Your task to perform on an android device: Open notification settings Image 0: 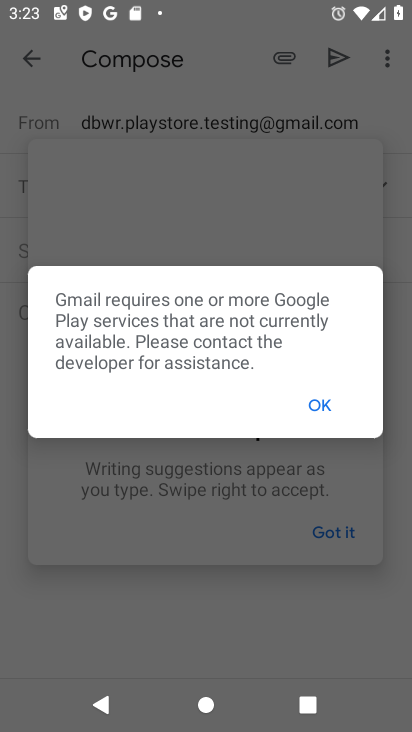
Step 0: press home button
Your task to perform on an android device: Open notification settings Image 1: 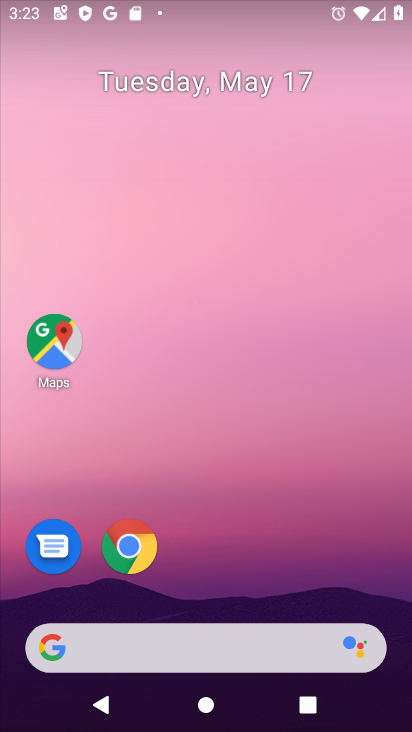
Step 1: drag from (403, 486) to (387, 211)
Your task to perform on an android device: Open notification settings Image 2: 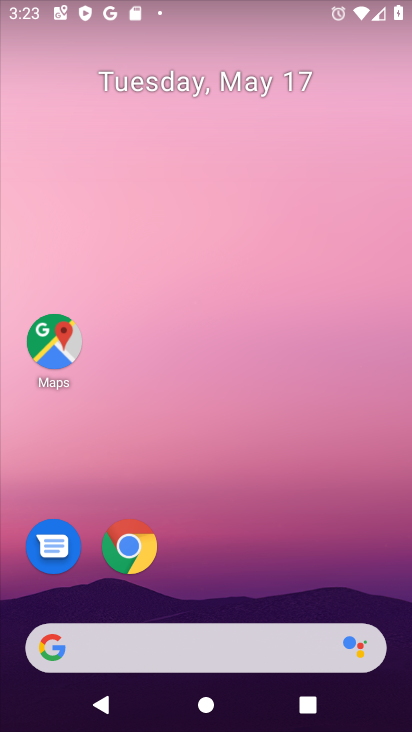
Step 2: drag from (404, 683) to (361, 276)
Your task to perform on an android device: Open notification settings Image 3: 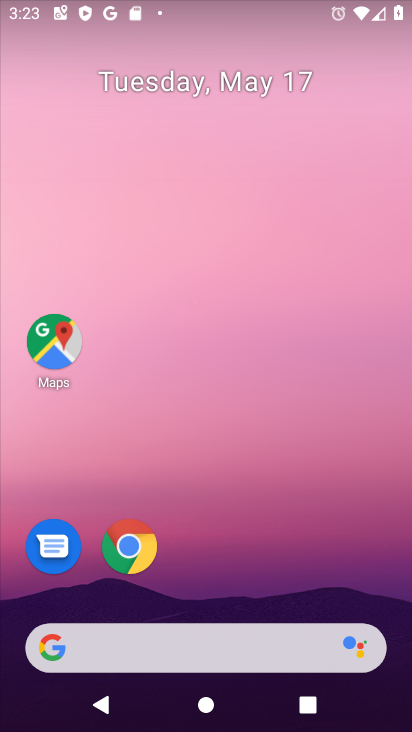
Step 3: drag from (400, 675) to (338, 185)
Your task to perform on an android device: Open notification settings Image 4: 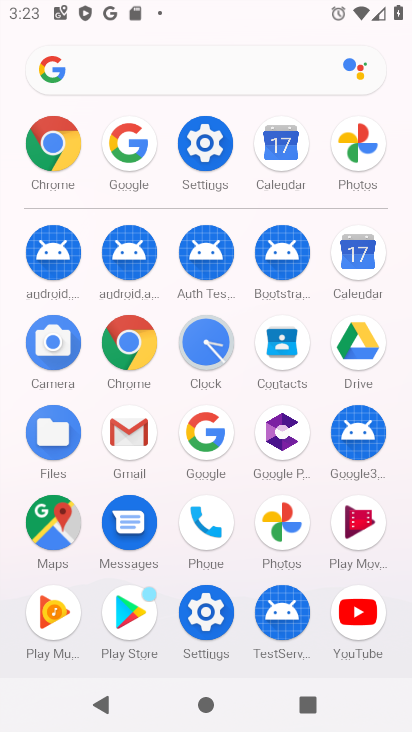
Step 4: click (214, 607)
Your task to perform on an android device: Open notification settings Image 5: 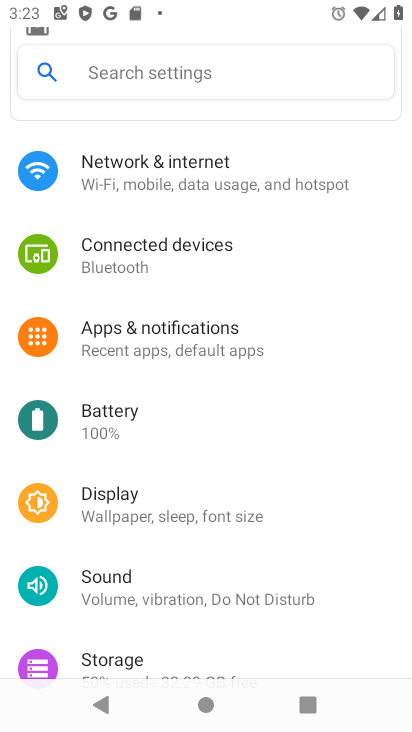
Step 5: click (132, 178)
Your task to perform on an android device: Open notification settings Image 6: 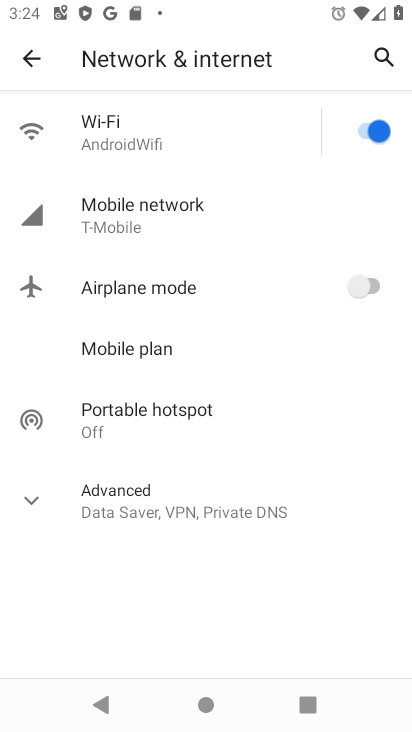
Step 6: click (32, 57)
Your task to perform on an android device: Open notification settings Image 7: 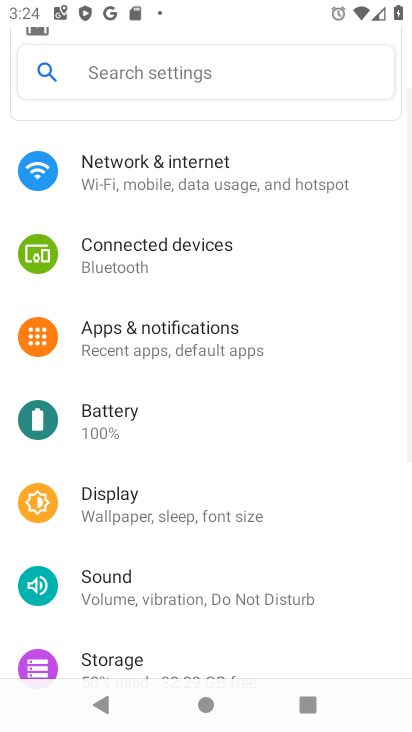
Step 7: click (141, 337)
Your task to perform on an android device: Open notification settings Image 8: 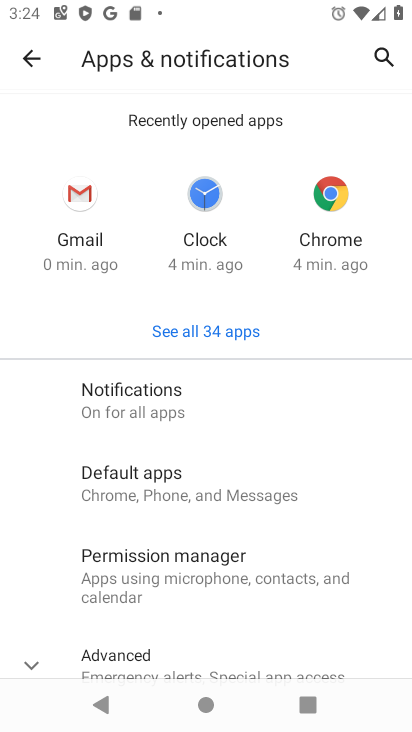
Step 8: click (123, 393)
Your task to perform on an android device: Open notification settings Image 9: 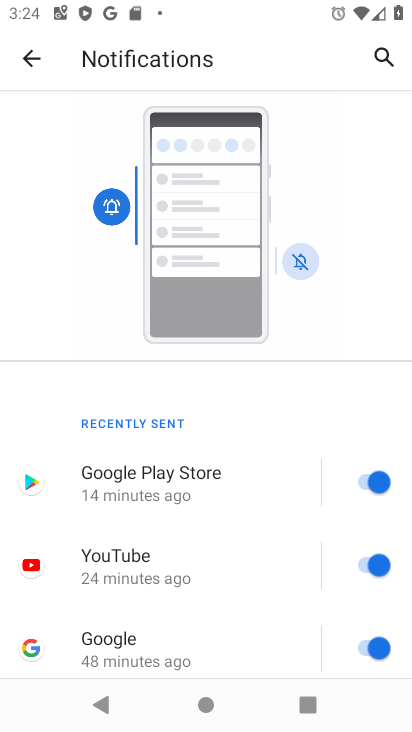
Step 9: task complete